Your task to perform on an android device: turn off picture-in-picture Image 0: 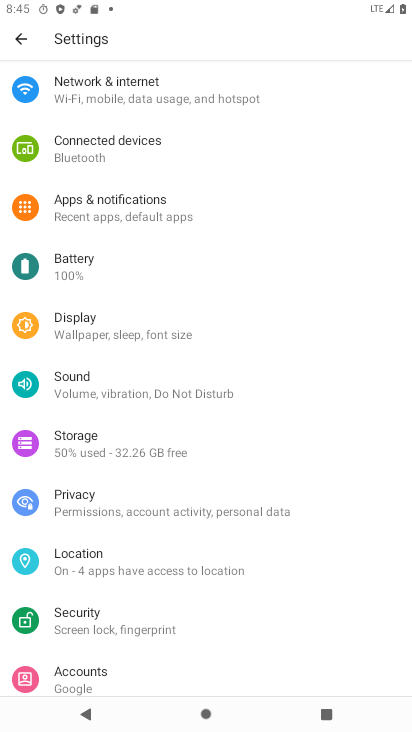
Step 0: press home button
Your task to perform on an android device: turn off picture-in-picture Image 1: 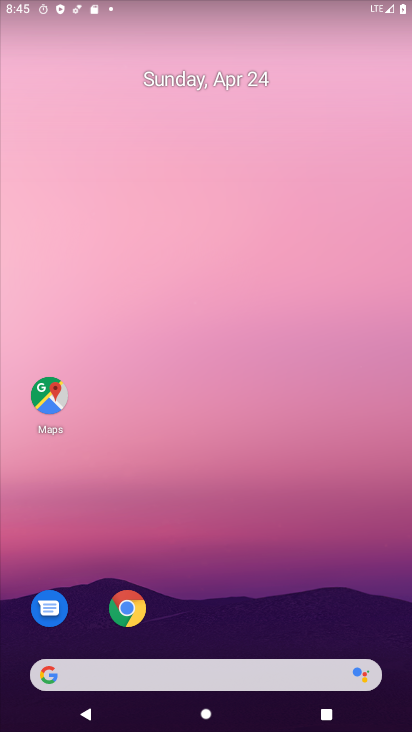
Step 1: click (126, 610)
Your task to perform on an android device: turn off picture-in-picture Image 2: 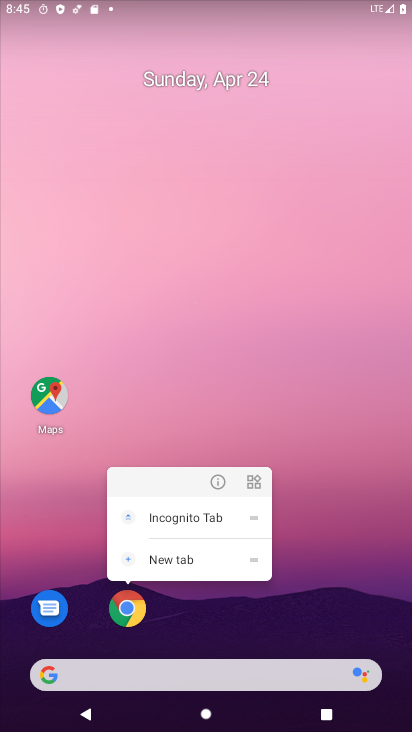
Step 2: click (214, 481)
Your task to perform on an android device: turn off picture-in-picture Image 3: 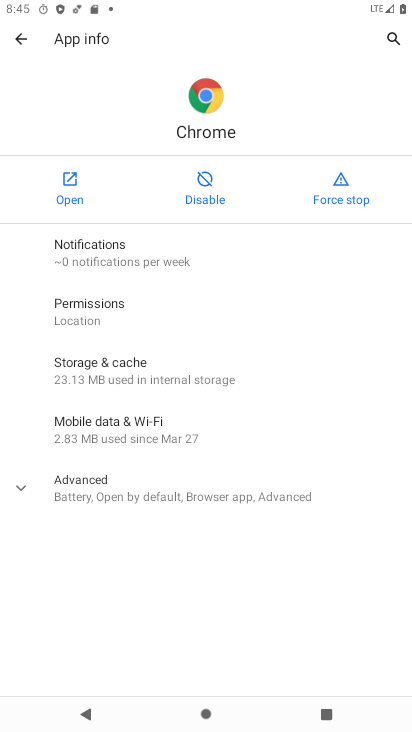
Step 3: click (22, 488)
Your task to perform on an android device: turn off picture-in-picture Image 4: 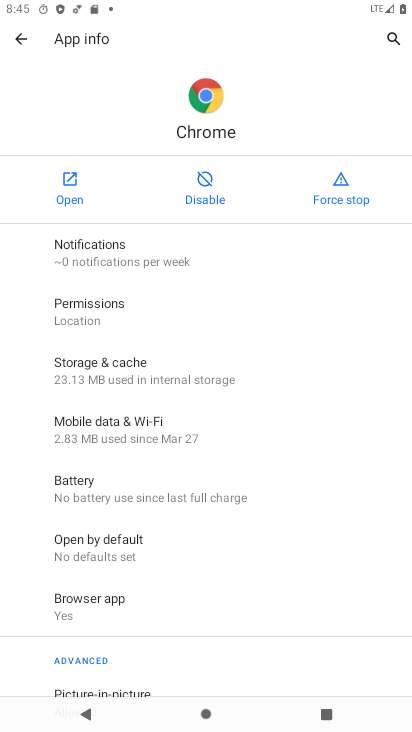
Step 4: drag from (272, 615) to (310, 376)
Your task to perform on an android device: turn off picture-in-picture Image 5: 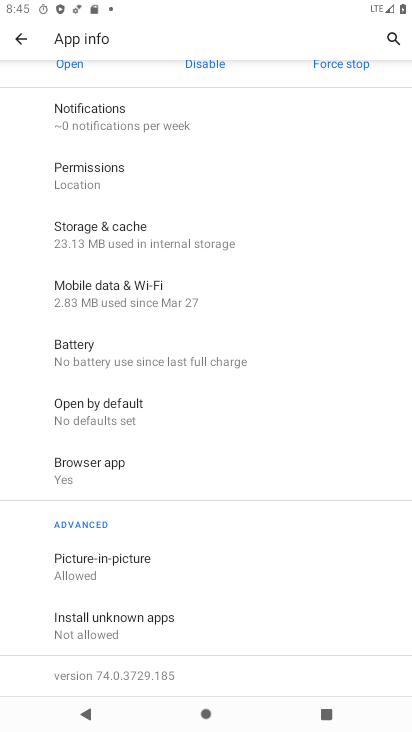
Step 5: click (122, 554)
Your task to perform on an android device: turn off picture-in-picture Image 6: 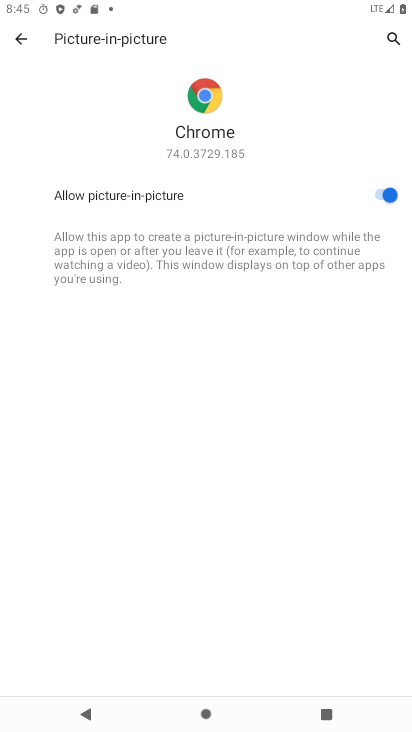
Step 6: click (385, 197)
Your task to perform on an android device: turn off picture-in-picture Image 7: 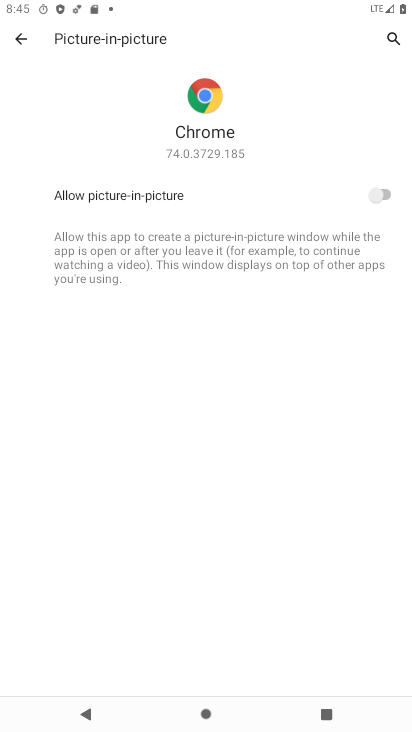
Step 7: task complete